Your task to perform on an android device: Open calendar and show me the first week of next month Image 0: 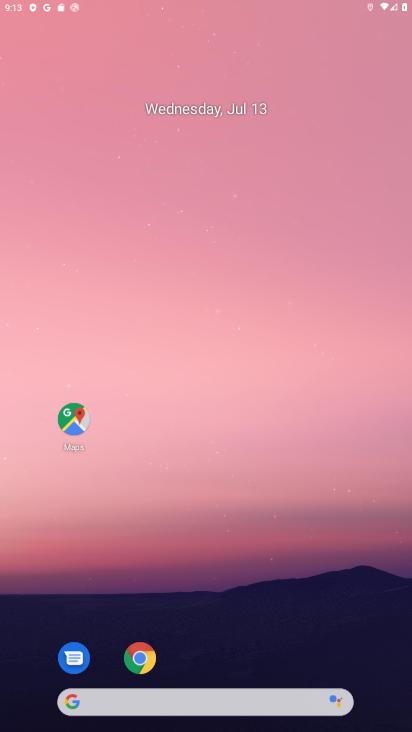
Step 0: press home button
Your task to perform on an android device: Open calendar and show me the first week of next month Image 1: 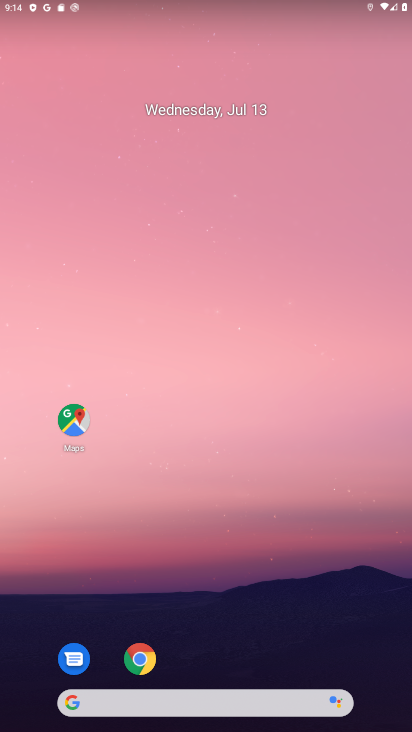
Step 1: drag from (199, 599) to (138, 347)
Your task to perform on an android device: Open calendar and show me the first week of next month Image 2: 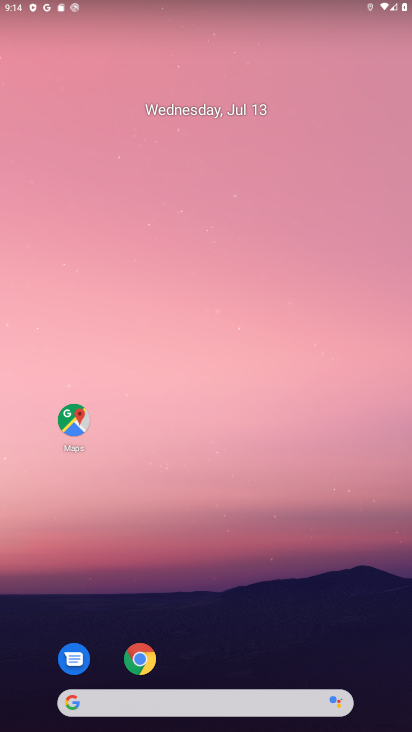
Step 2: drag from (216, 660) to (170, 76)
Your task to perform on an android device: Open calendar and show me the first week of next month Image 3: 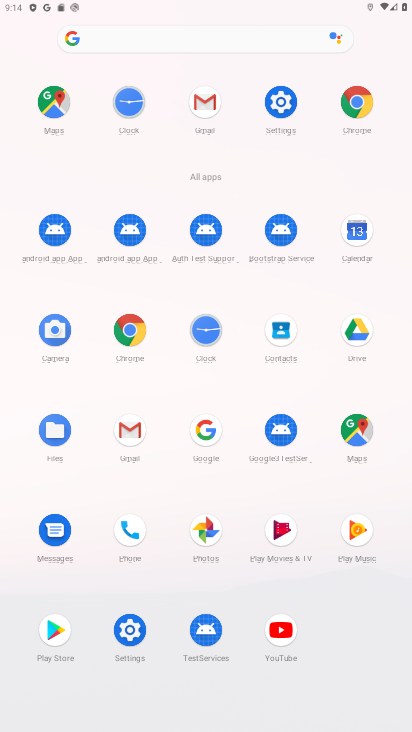
Step 3: click (362, 235)
Your task to perform on an android device: Open calendar and show me the first week of next month Image 4: 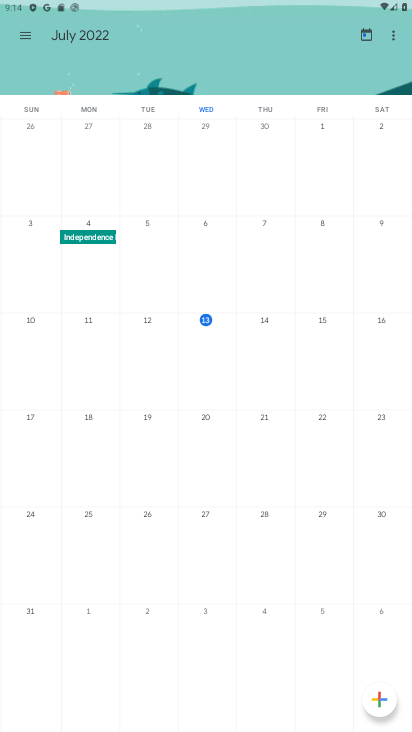
Step 4: click (25, 32)
Your task to perform on an android device: Open calendar and show me the first week of next month Image 5: 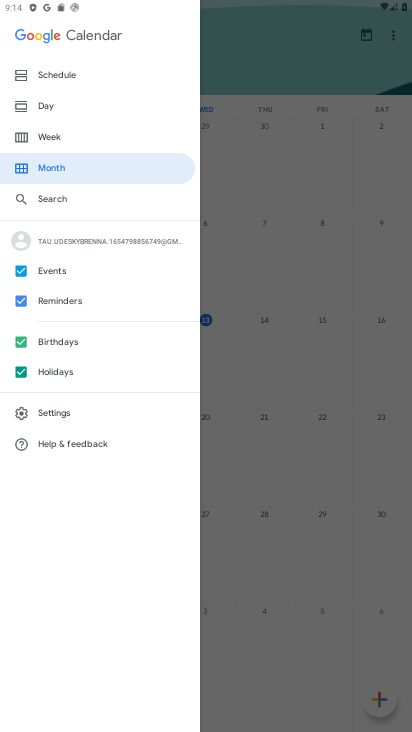
Step 5: click (52, 135)
Your task to perform on an android device: Open calendar and show me the first week of next month Image 6: 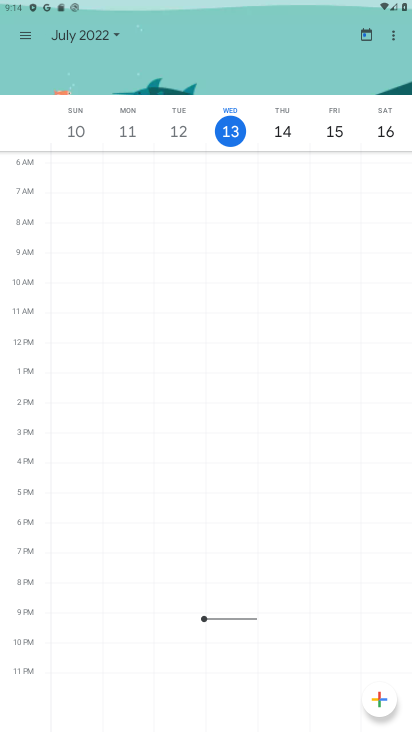
Step 6: drag from (365, 126) to (64, 206)
Your task to perform on an android device: Open calendar and show me the first week of next month Image 7: 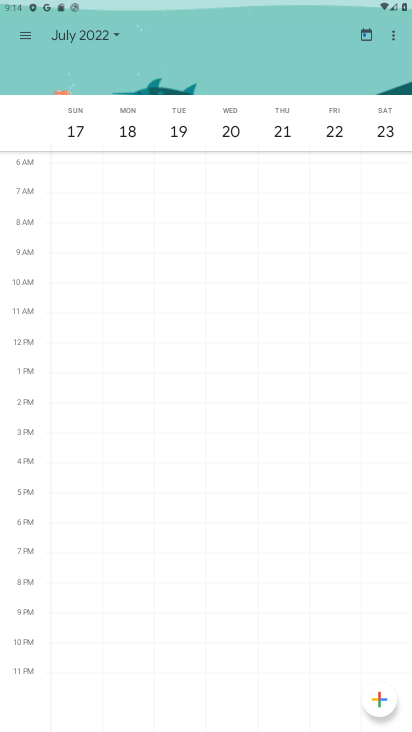
Step 7: drag from (393, 143) to (0, 182)
Your task to perform on an android device: Open calendar and show me the first week of next month Image 8: 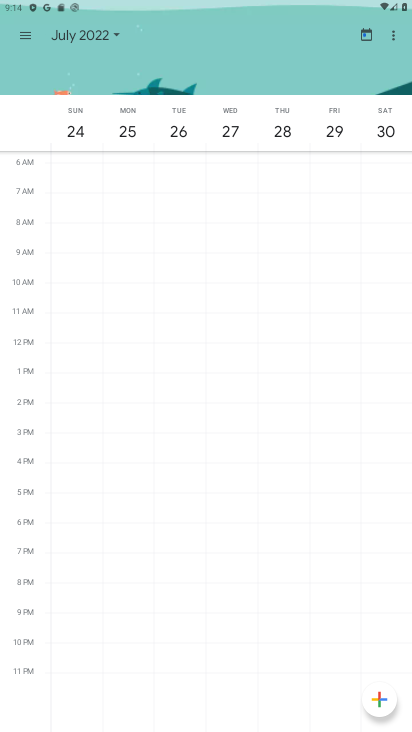
Step 8: drag from (340, 130) to (39, 149)
Your task to perform on an android device: Open calendar and show me the first week of next month Image 9: 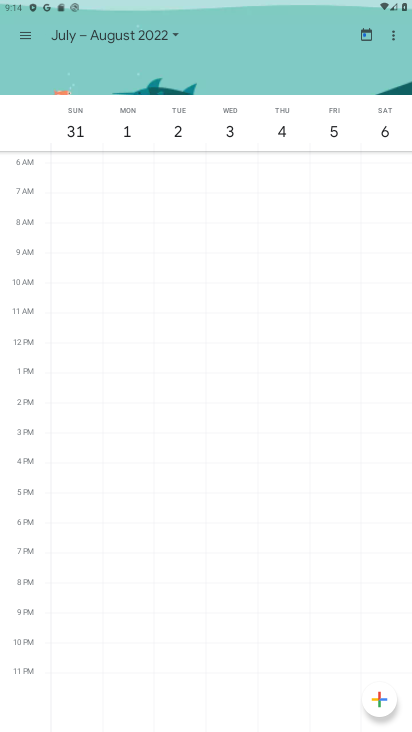
Step 9: click (123, 130)
Your task to perform on an android device: Open calendar and show me the first week of next month Image 10: 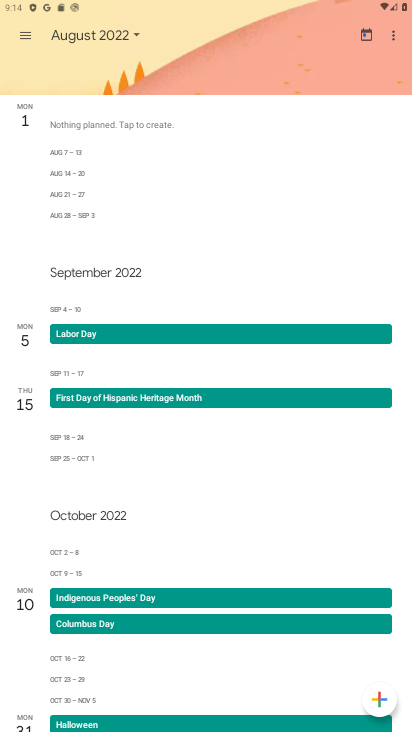
Step 10: task complete